Your task to perform on an android device: See recent photos Image 0: 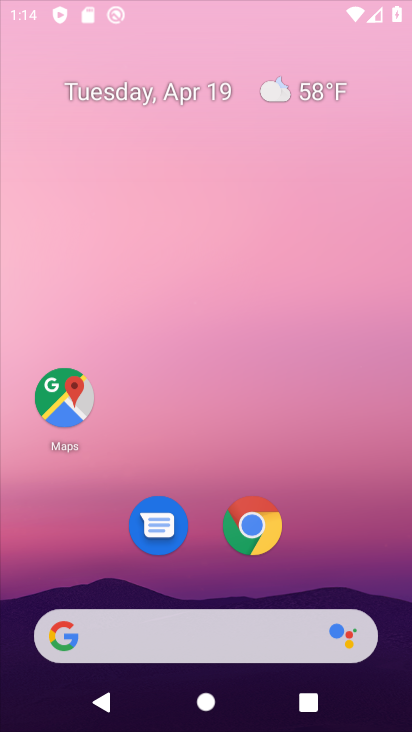
Step 0: click (251, 107)
Your task to perform on an android device: See recent photos Image 1: 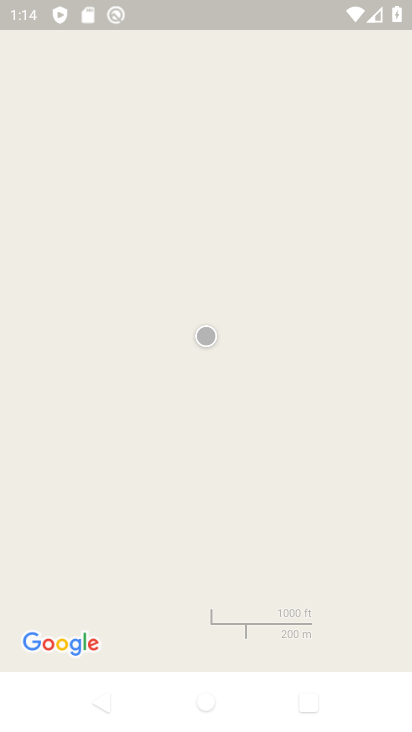
Step 1: press back button
Your task to perform on an android device: See recent photos Image 2: 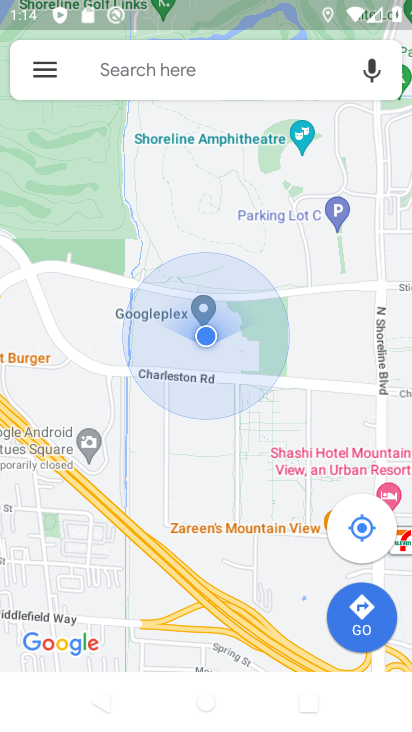
Step 2: press back button
Your task to perform on an android device: See recent photos Image 3: 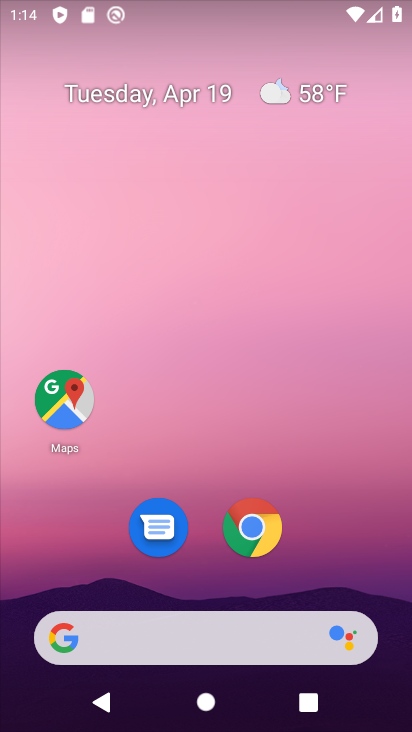
Step 3: drag from (193, 415) to (261, 105)
Your task to perform on an android device: See recent photos Image 4: 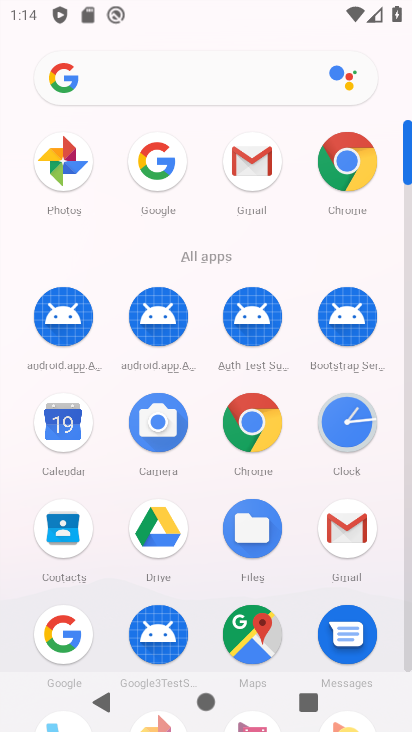
Step 4: drag from (174, 577) to (257, 256)
Your task to perform on an android device: See recent photos Image 5: 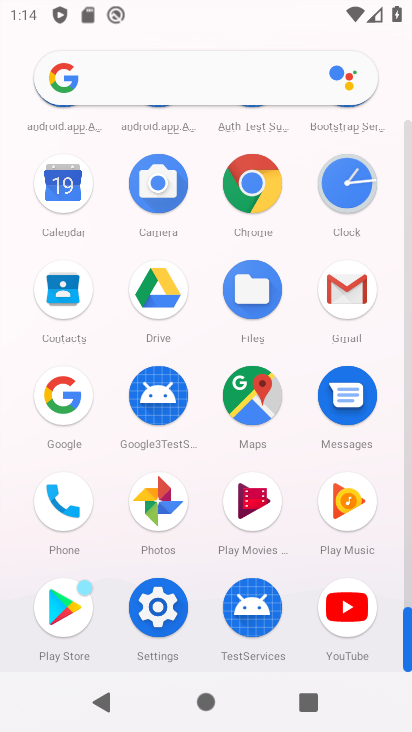
Step 5: click (153, 518)
Your task to perform on an android device: See recent photos Image 6: 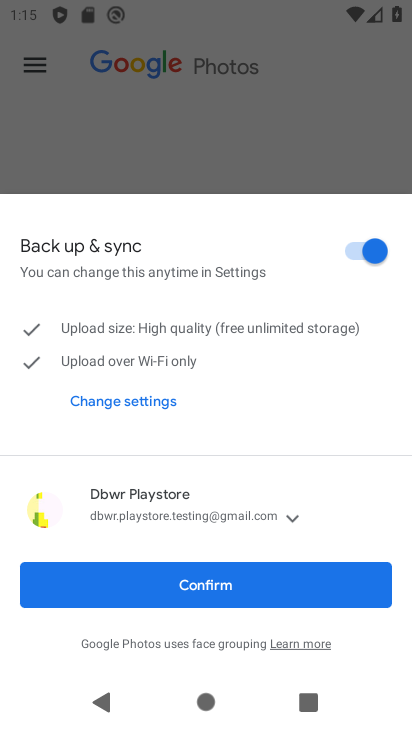
Step 6: click (219, 582)
Your task to perform on an android device: See recent photos Image 7: 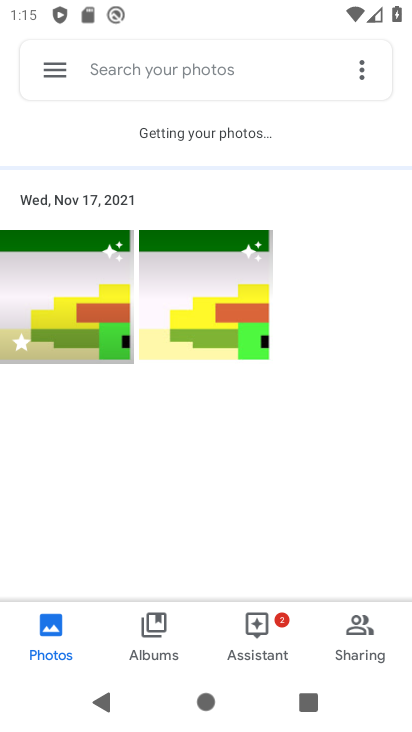
Step 7: task complete